Your task to perform on an android device: Open Chrome and go to settings Image 0: 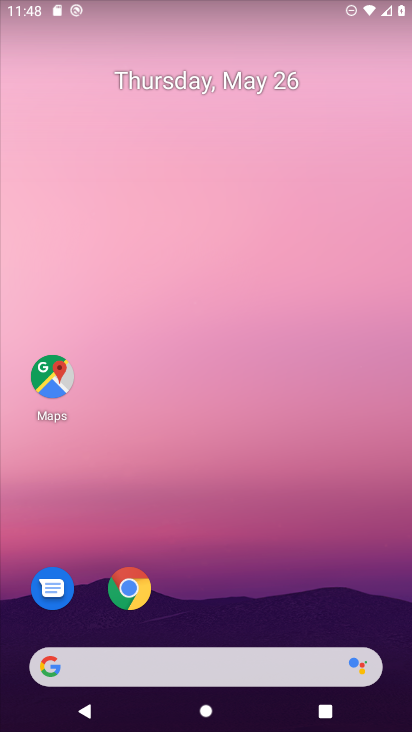
Step 0: click (131, 592)
Your task to perform on an android device: Open Chrome and go to settings Image 1: 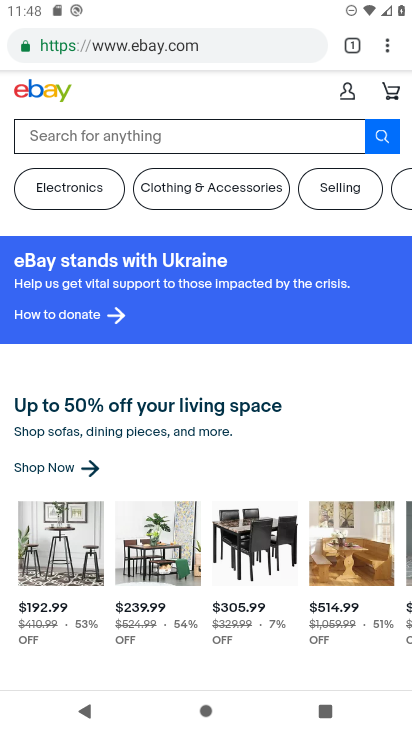
Step 1: click (386, 52)
Your task to perform on an android device: Open Chrome and go to settings Image 2: 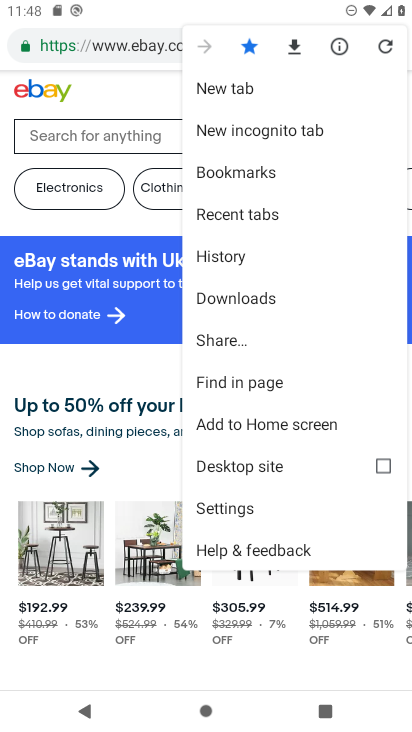
Step 2: click (237, 502)
Your task to perform on an android device: Open Chrome and go to settings Image 3: 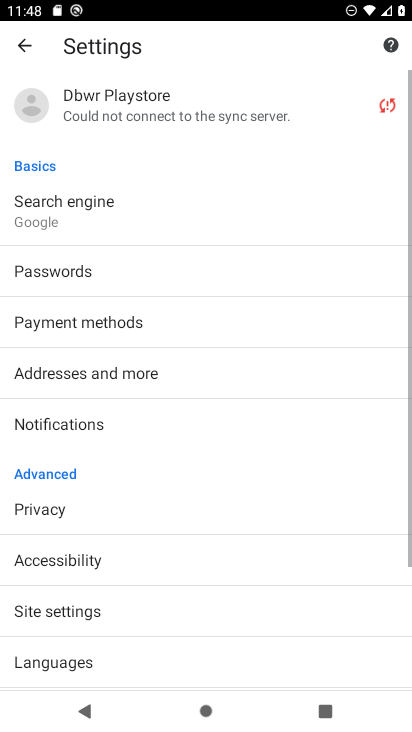
Step 3: task complete